Your task to perform on an android device: change the clock display to analog Image 0: 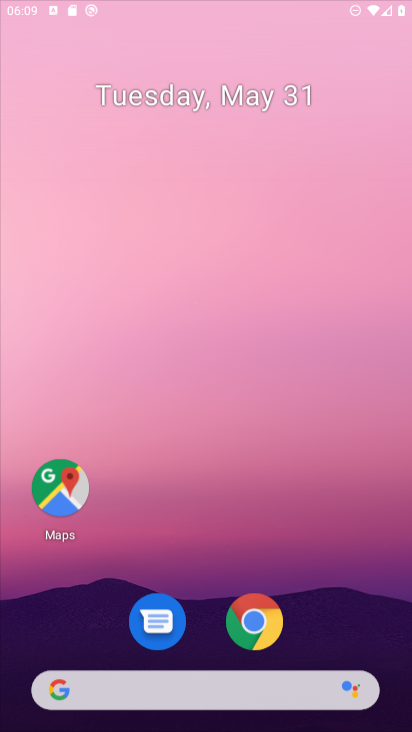
Step 0: click (246, 3)
Your task to perform on an android device: change the clock display to analog Image 1: 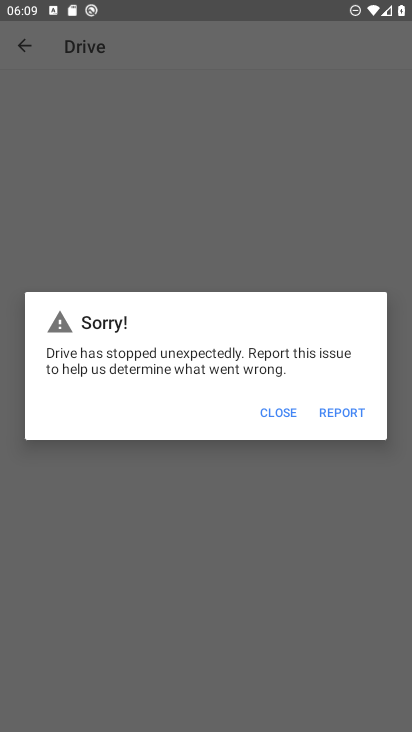
Step 1: press home button
Your task to perform on an android device: change the clock display to analog Image 2: 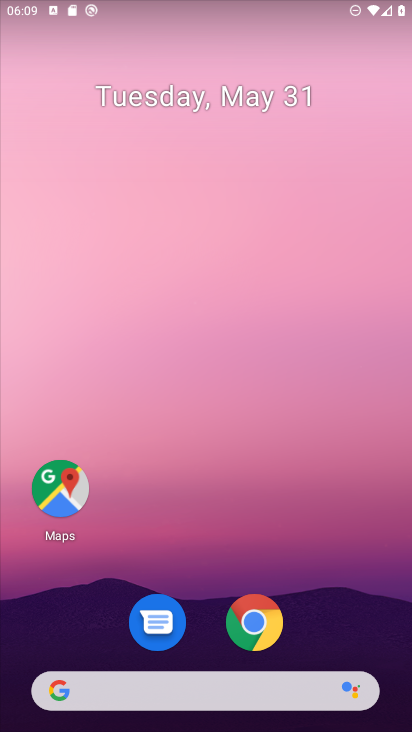
Step 2: drag from (311, 687) to (248, 41)
Your task to perform on an android device: change the clock display to analog Image 3: 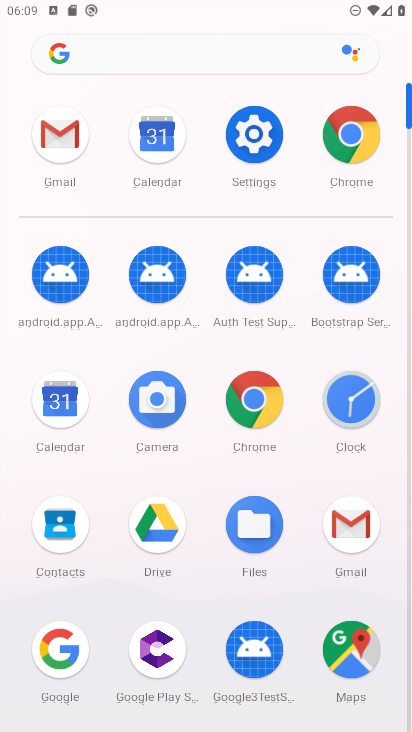
Step 3: click (354, 399)
Your task to perform on an android device: change the clock display to analog Image 4: 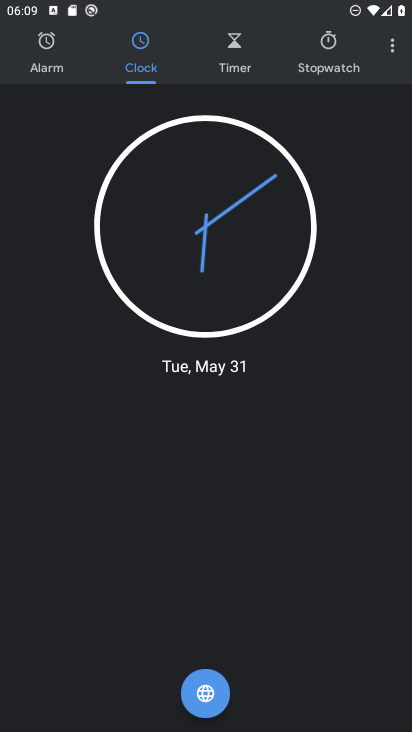
Step 4: click (393, 49)
Your task to perform on an android device: change the clock display to analog Image 5: 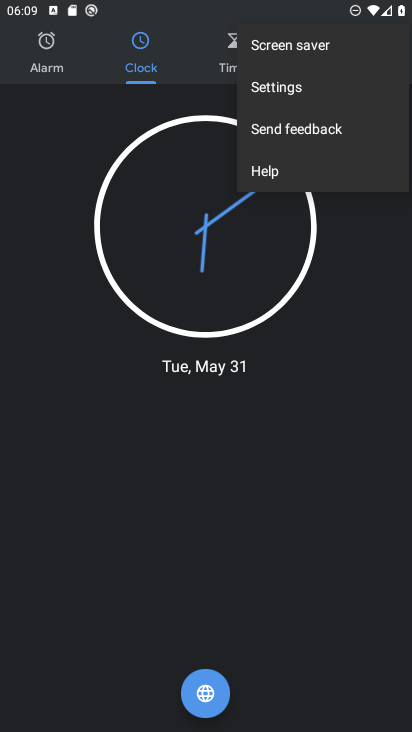
Step 5: click (292, 84)
Your task to perform on an android device: change the clock display to analog Image 6: 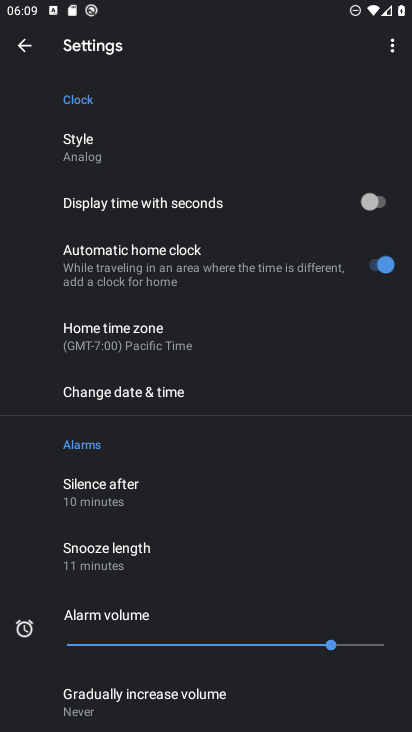
Step 6: task complete